Your task to perform on an android device: turn on translation in the chrome app Image 0: 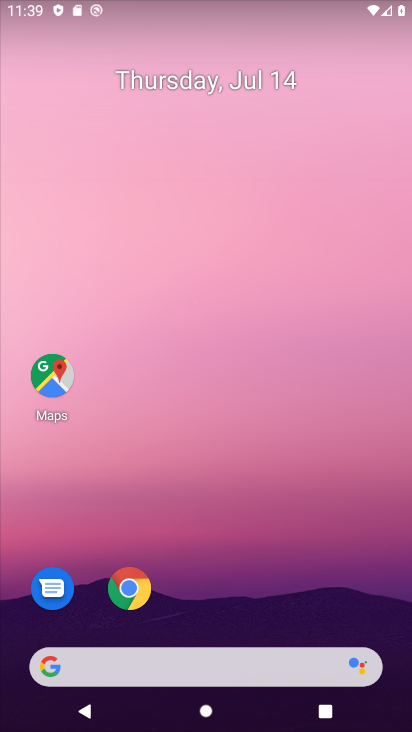
Step 0: click (131, 581)
Your task to perform on an android device: turn on translation in the chrome app Image 1: 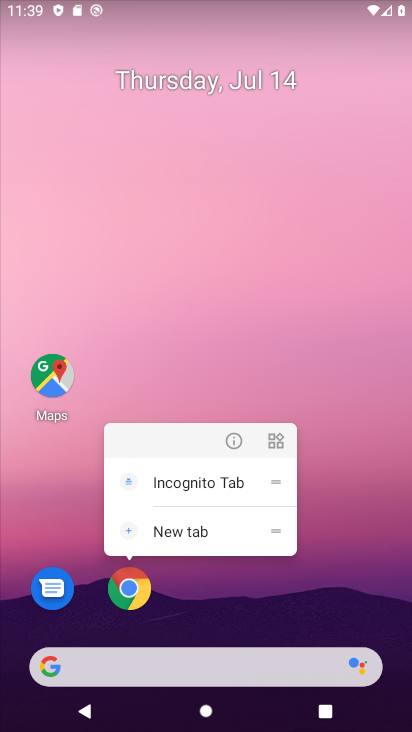
Step 1: click (131, 581)
Your task to perform on an android device: turn on translation in the chrome app Image 2: 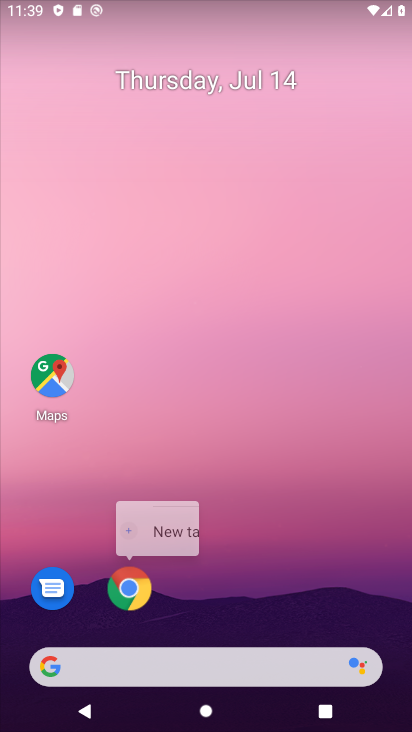
Step 2: click (131, 581)
Your task to perform on an android device: turn on translation in the chrome app Image 3: 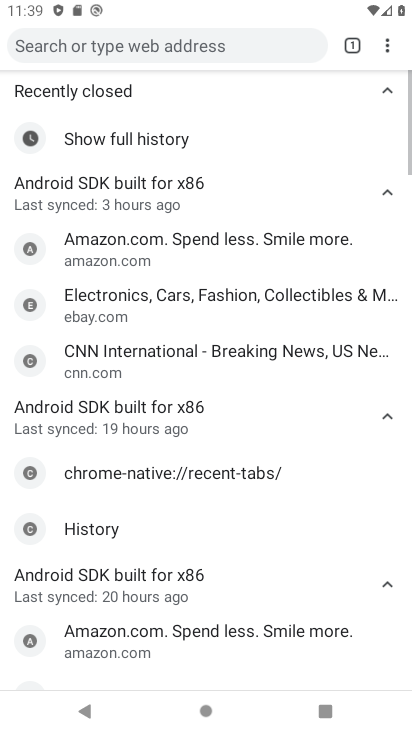
Step 3: click (389, 42)
Your task to perform on an android device: turn on translation in the chrome app Image 4: 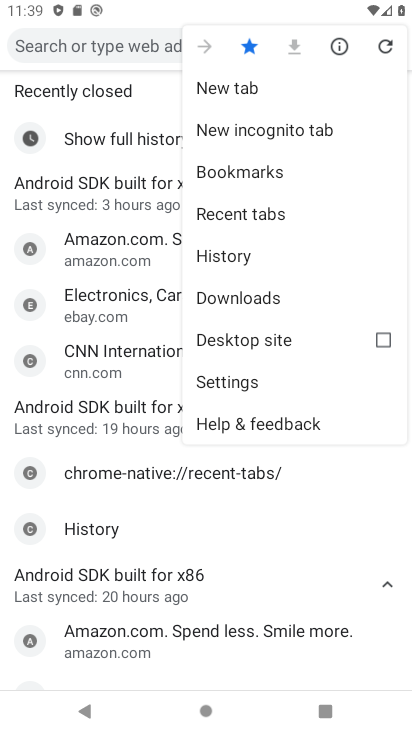
Step 4: click (213, 385)
Your task to perform on an android device: turn on translation in the chrome app Image 5: 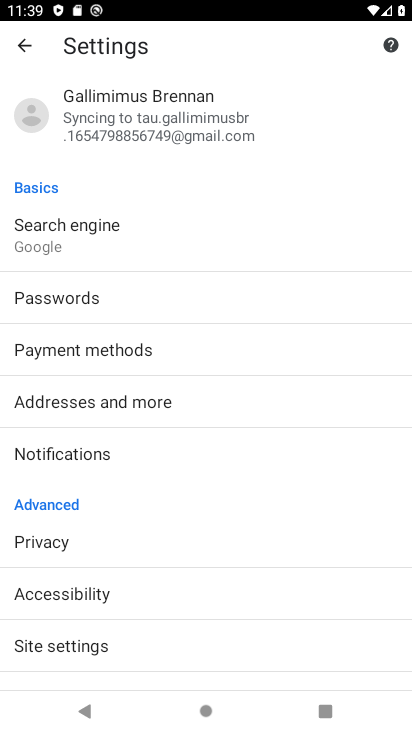
Step 5: drag from (184, 494) to (261, 116)
Your task to perform on an android device: turn on translation in the chrome app Image 6: 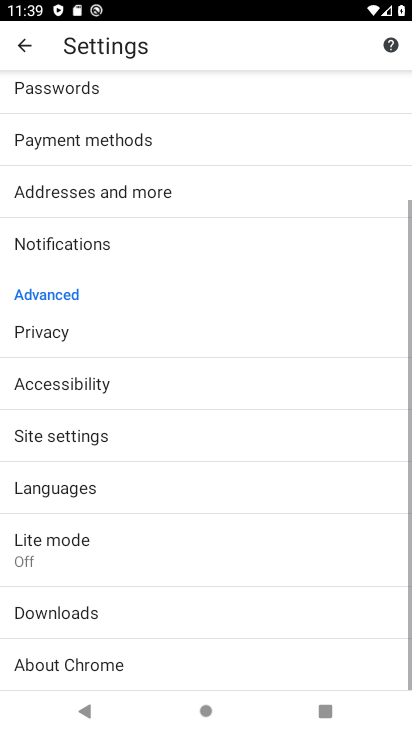
Step 6: click (113, 478)
Your task to perform on an android device: turn on translation in the chrome app Image 7: 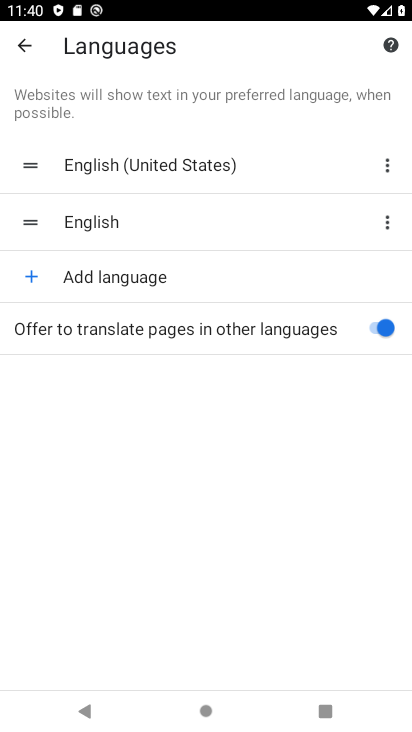
Step 7: task complete